Your task to perform on an android device: Open Google Image 0: 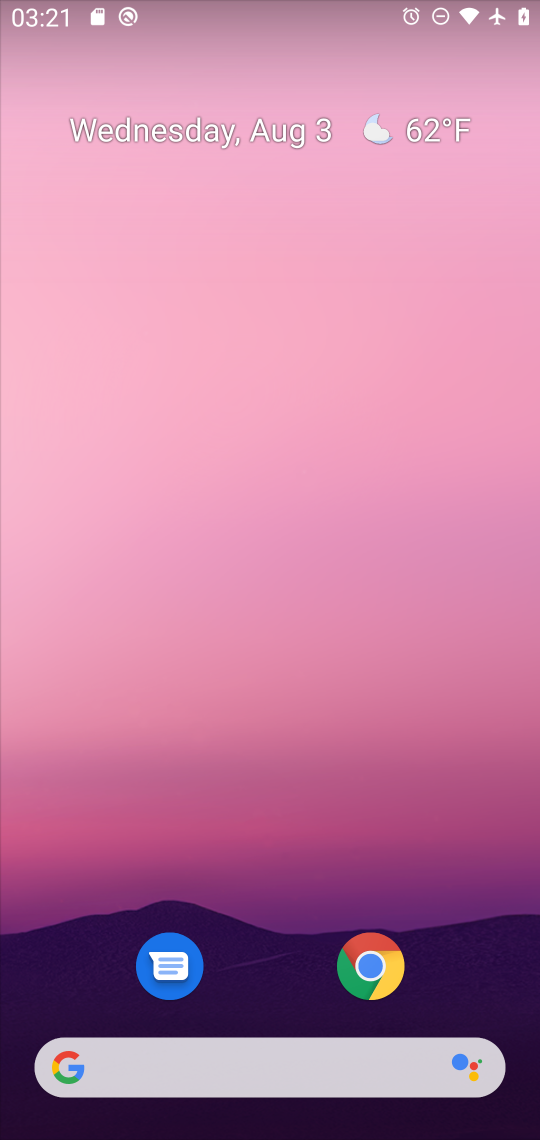
Step 0: drag from (258, 967) to (177, 390)
Your task to perform on an android device: Open Google Image 1: 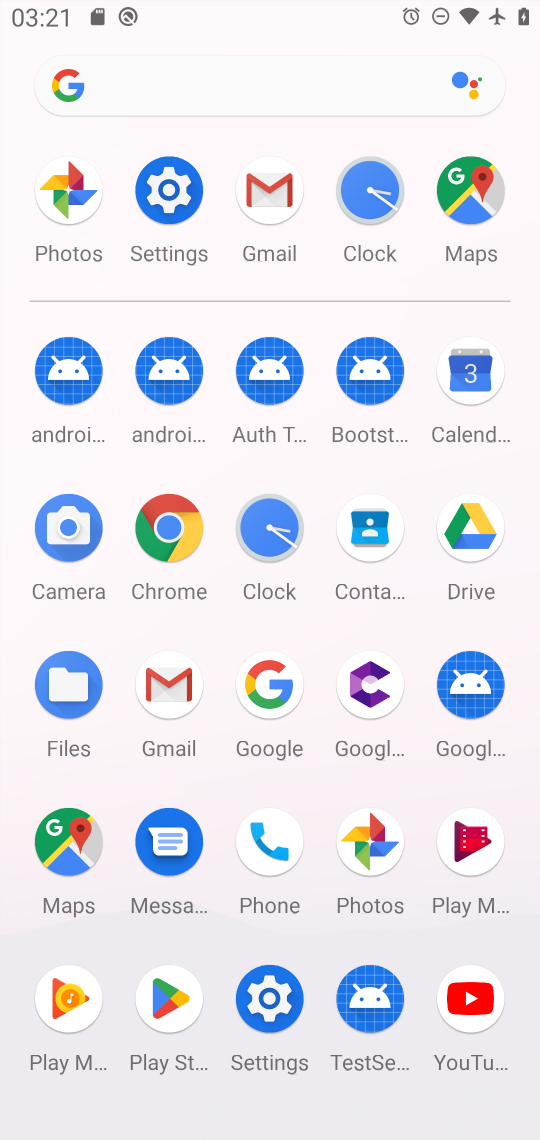
Step 1: click (295, 685)
Your task to perform on an android device: Open Google Image 2: 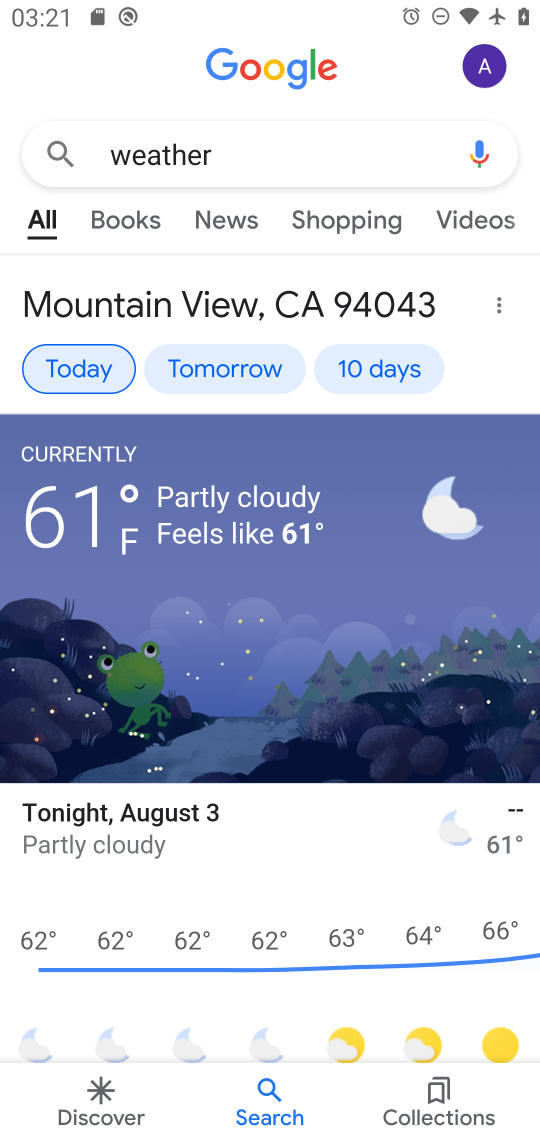
Step 2: task complete